Your task to perform on an android device: see creations saved in the google photos Image 0: 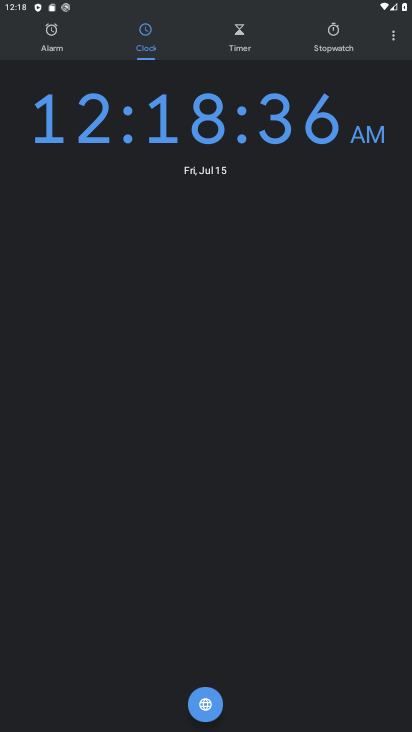
Step 0: press home button
Your task to perform on an android device: see creations saved in the google photos Image 1: 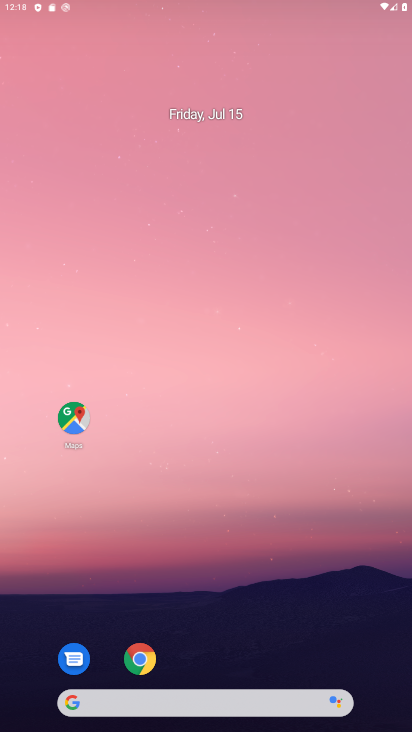
Step 1: drag from (208, 593) to (212, 134)
Your task to perform on an android device: see creations saved in the google photos Image 2: 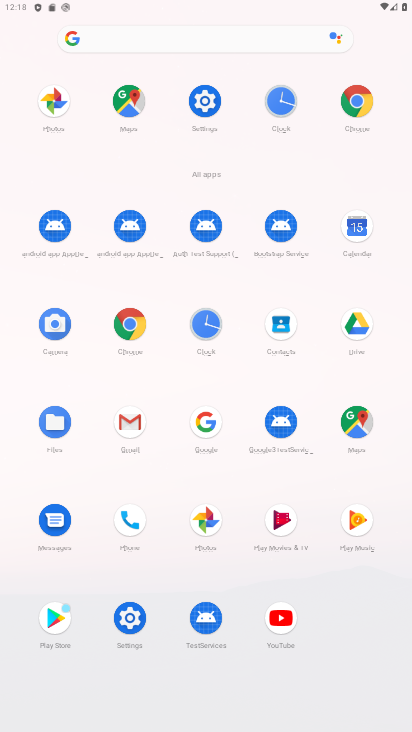
Step 2: click (207, 521)
Your task to perform on an android device: see creations saved in the google photos Image 3: 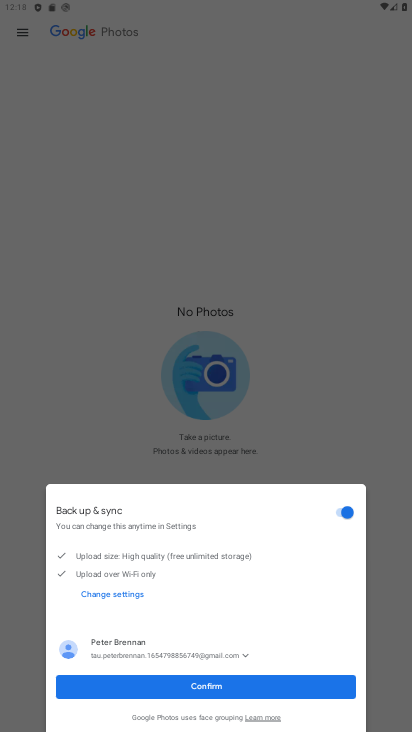
Step 3: click (195, 687)
Your task to perform on an android device: see creations saved in the google photos Image 4: 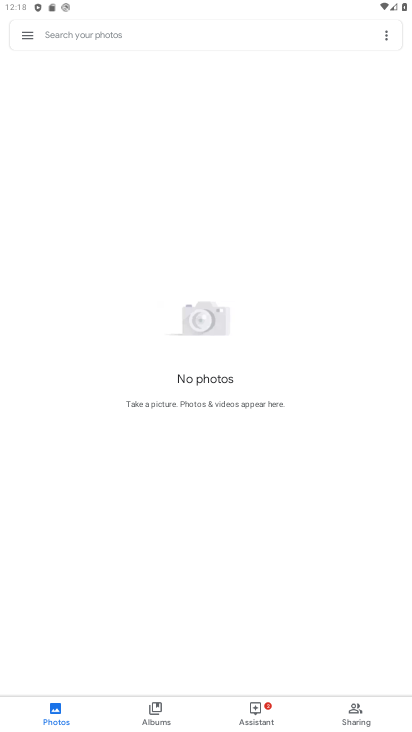
Step 4: click (170, 40)
Your task to perform on an android device: see creations saved in the google photos Image 5: 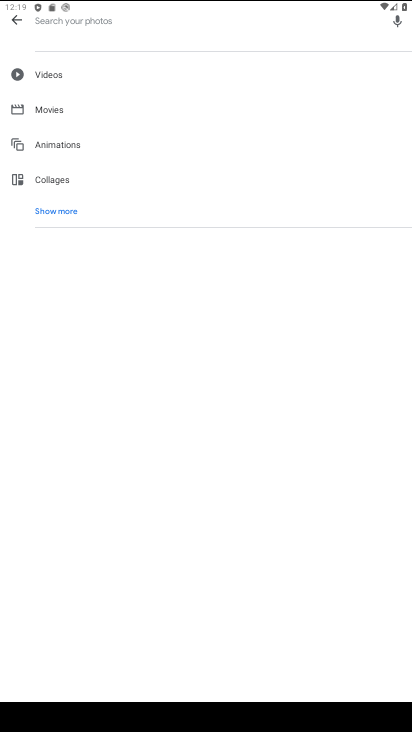
Step 5: click (58, 201)
Your task to perform on an android device: see creations saved in the google photos Image 6: 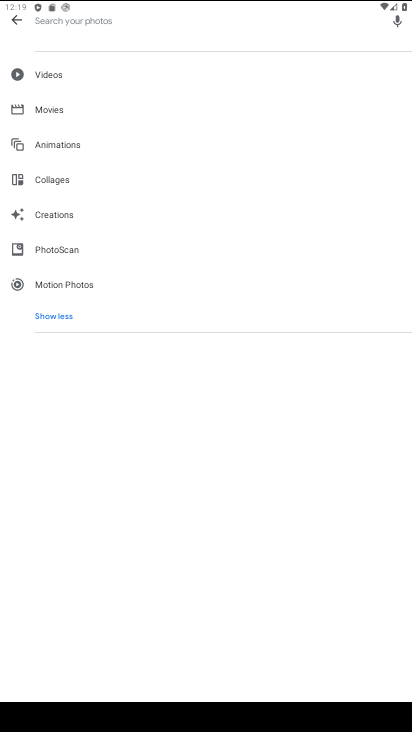
Step 6: click (48, 208)
Your task to perform on an android device: see creations saved in the google photos Image 7: 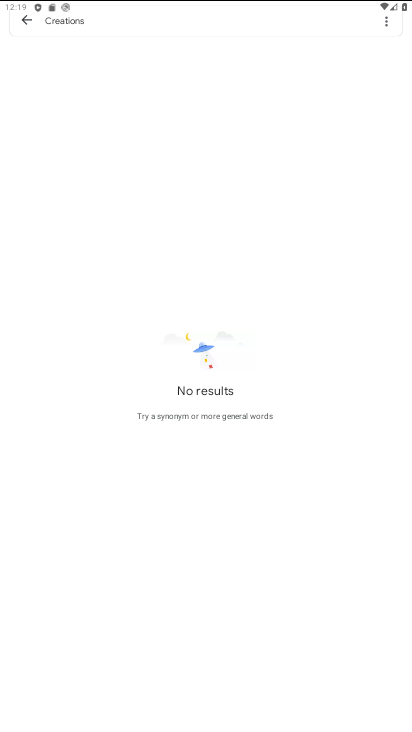
Step 7: task complete